Your task to perform on an android device: star an email in the gmail app Image 0: 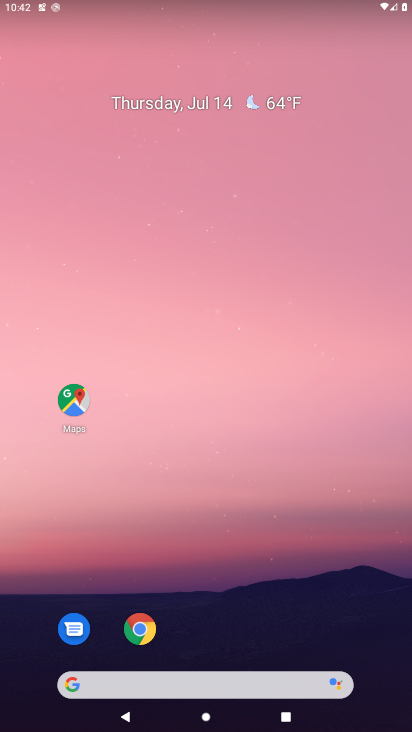
Step 0: drag from (183, 601) to (183, 346)
Your task to perform on an android device: star an email in the gmail app Image 1: 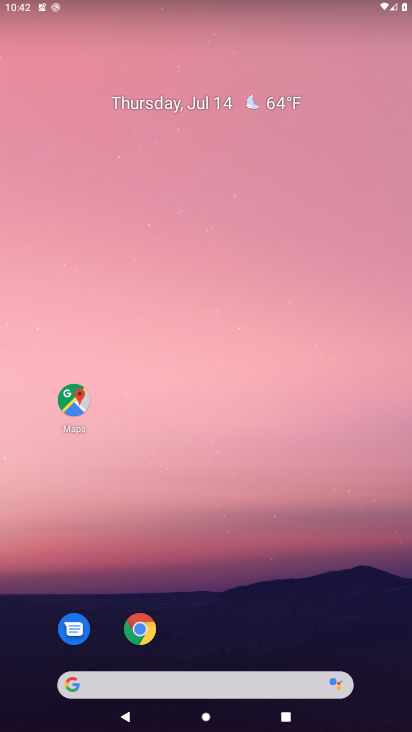
Step 1: drag from (188, 676) to (181, 237)
Your task to perform on an android device: star an email in the gmail app Image 2: 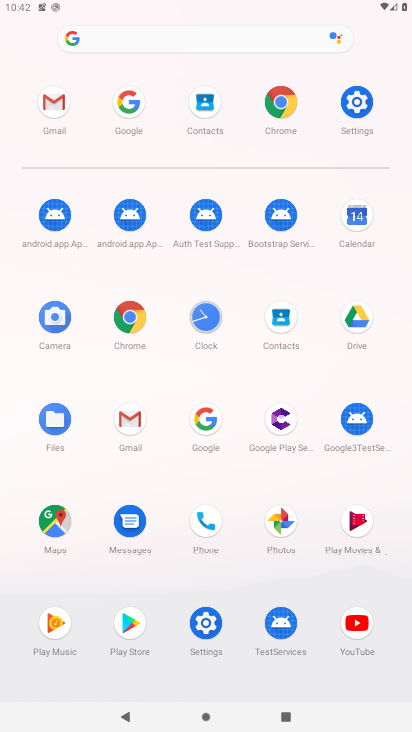
Step 2: click (137, 424)
Your task to perform on an android device: star an email in the gmail app Image 3: 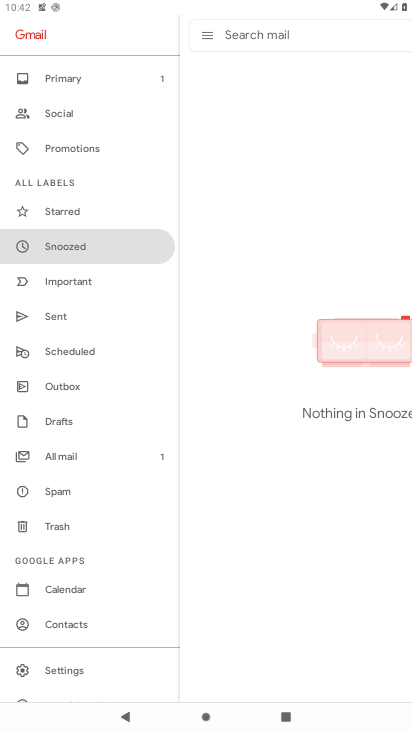
Step 3: click (55, 458)
Your task to perform on an android device: star an email in the gmail app Image 4: 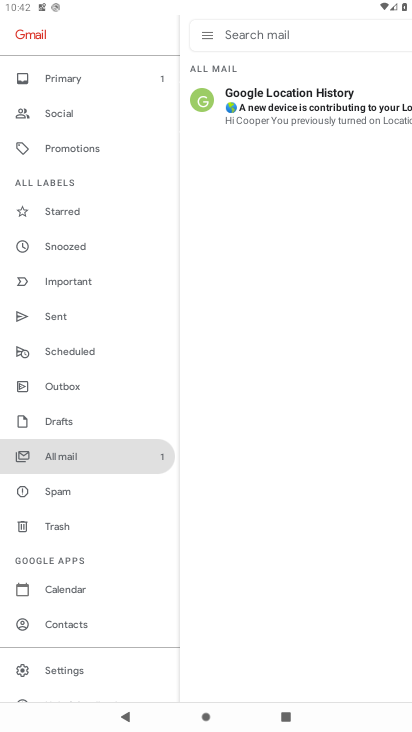
Step 4: click (290, 105)
Your task to perform on an android device: star an email in the gmail app Image 5: 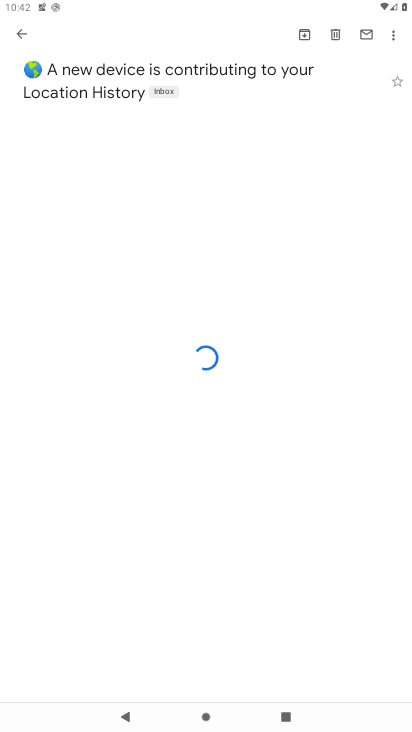
Step 5: click (396, 83)
Your task to perform on an android device: star an email in the gmail app Image 6: 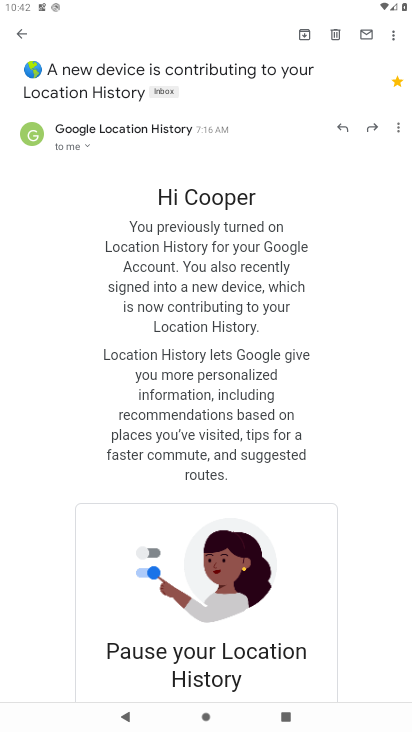
Step 6: task complete